Your task to perform on an android device: Open Maps and search for coffee Image 0: 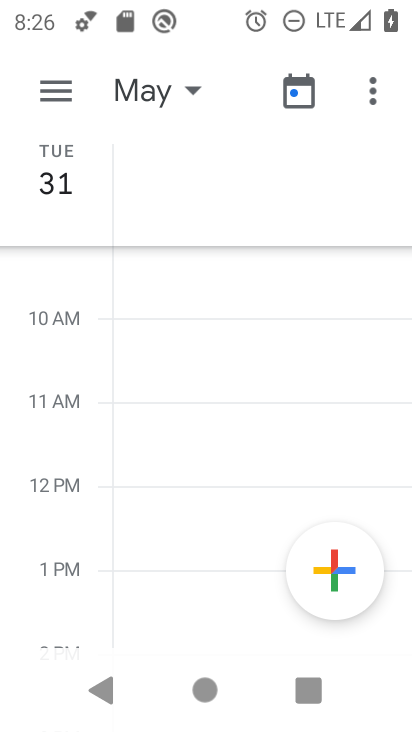
Step 0: press home button
Your task to perform on an android device: Open Maps and search for coffee Image 1: 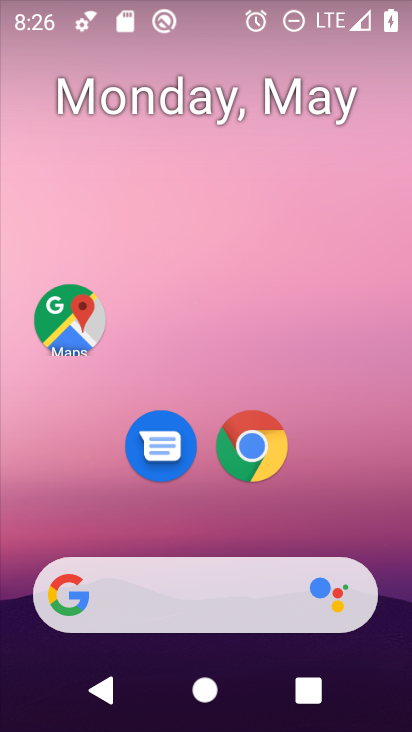
Step 1: click (67, 314)
Your task to perform on an android device: Open Maps and search for coffee Image 2: 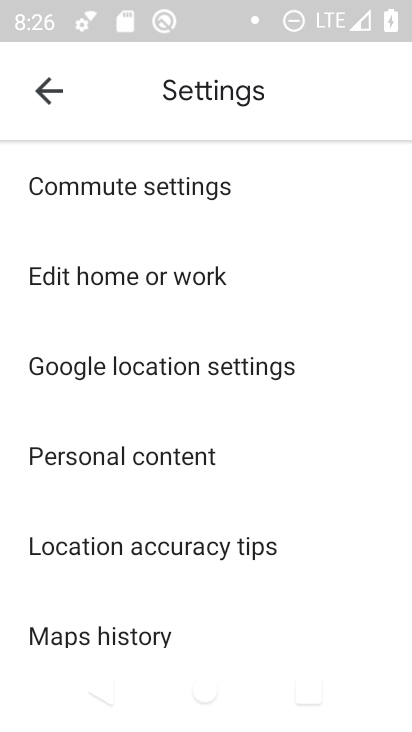
Step 2: click (44, 79)
Your task to perform on an android device: Open Maps and search for coffee Image 3: 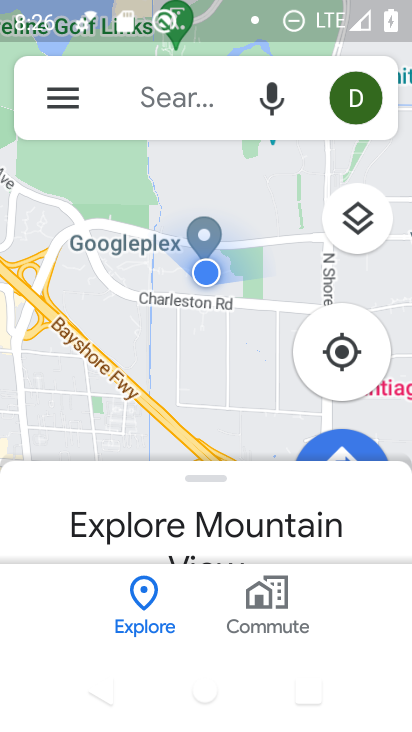
Step 3: click (166, 108)
Your task to perform on an android device: Open Maps and search for coffee Image 4: 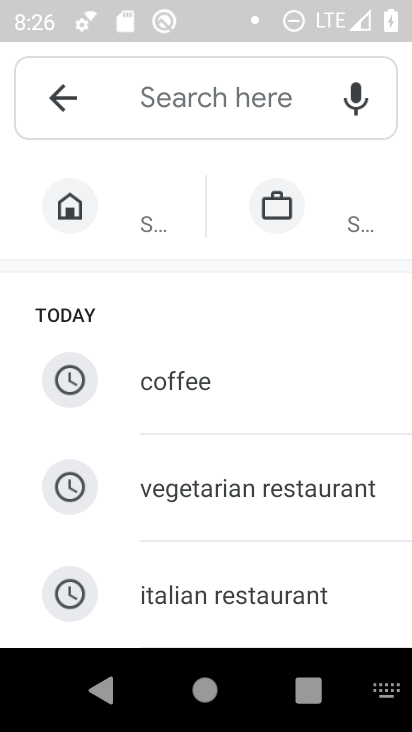
Step 4: click (181, 377)
Your task to perform on an android device: Open Maps and search for coffee Image 5: 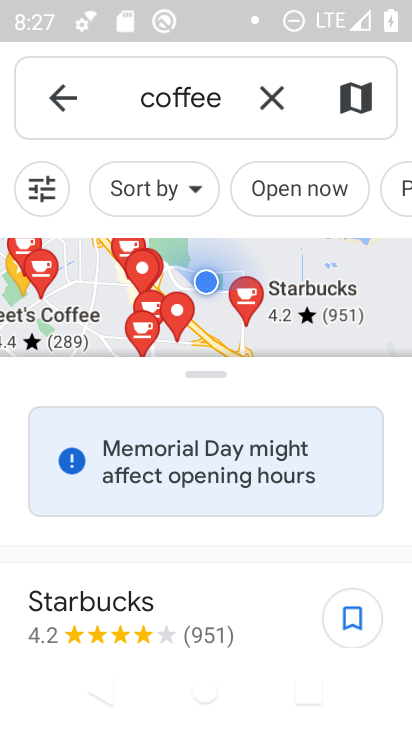
Step 5: task complete